Your task to perform on an android device: open chrome and create a bookmark for the current page Image 0: 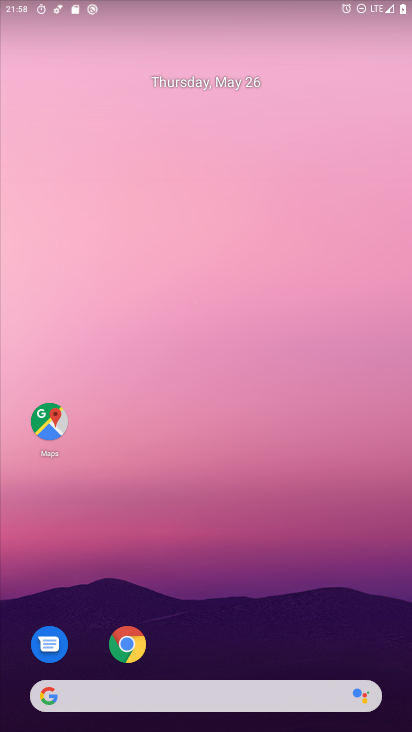
Step 0: drag from (192, 633) to (224, 120)
Your task to perform on an android device: open chrome and create a bookmark for the current page Image 1: 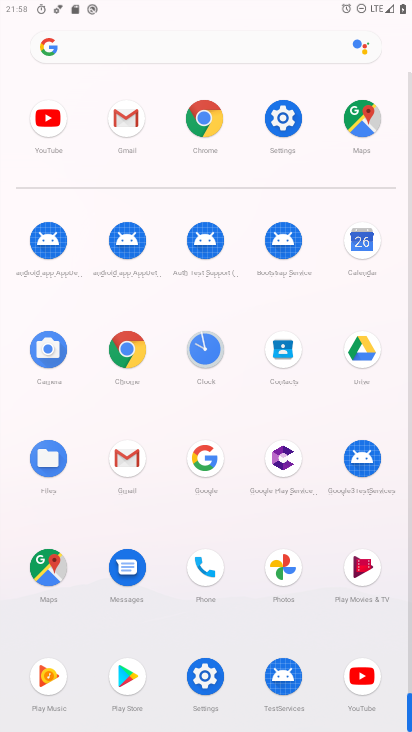
Step 1: click (127, 352)
Your task to perform on an android device: open chrome and create a bookmark for the current page Image 2: 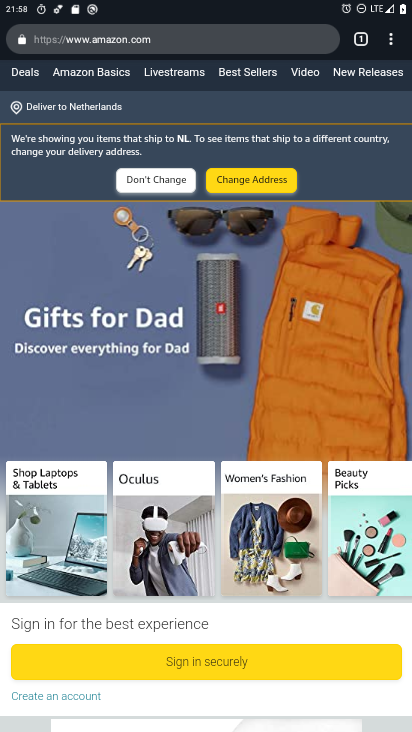
Step 2: drag from (384, 34) to (1, 262)
Your task to perform on an android device: open chrome and create a bookmark for the current page Image 3: 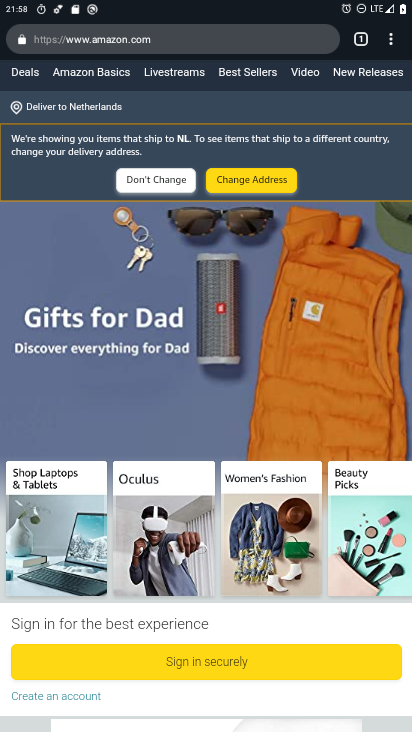
Step 3: click (151, 544)
Your task to perform on an android device: open chrome and create a bookmark for the current page Image 4: 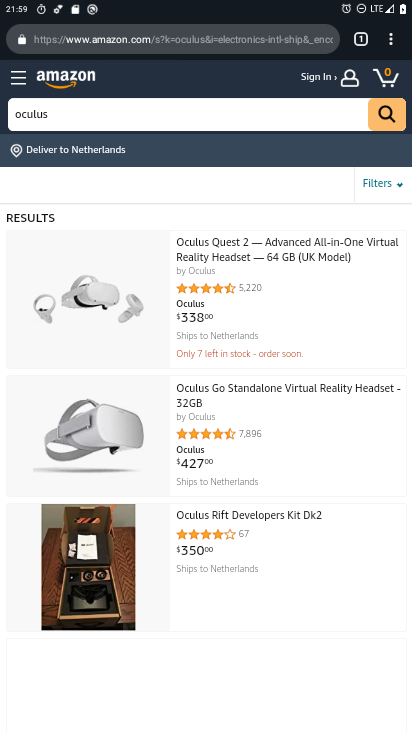
Step 4: drag from (383, 38) to (268, 45)
Your task to perform on an android device: open chrome and create a bookmark for the current page Image 5: 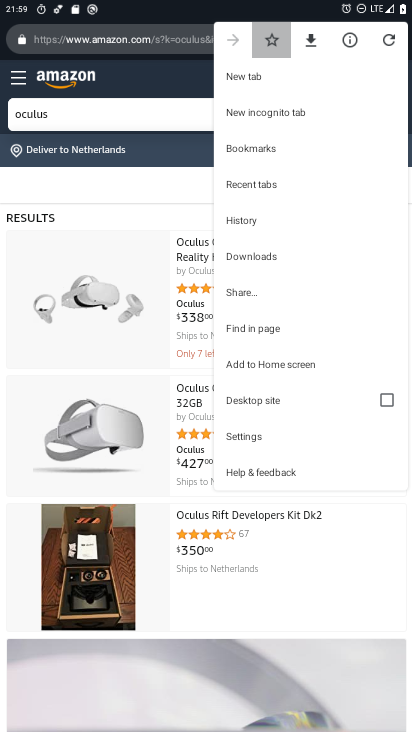
Step 5: click (268, 45)
Your task to perform on an android device: open chrome and create a bookmark for the current page Image 6: 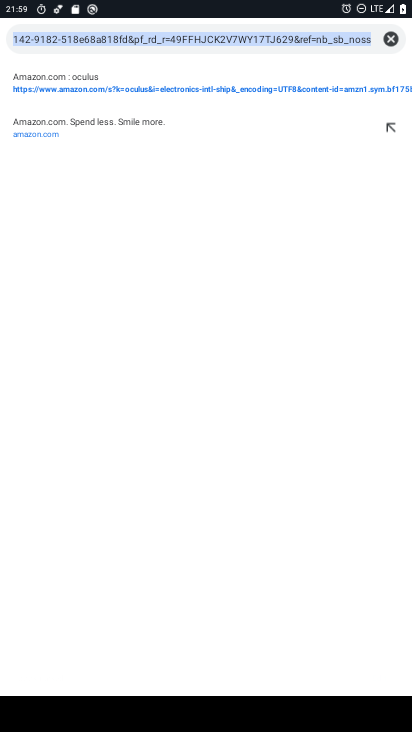
Step 6: task complete